Your task to perform on an android device: choose inbox layout in the gmail app Image 0: 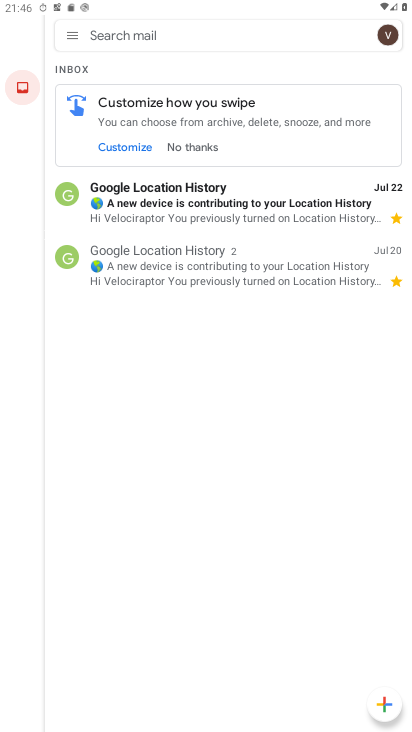
Step 0: click (68, 38)
Your task to perform on an android device: choose inbox layout in the gmail app Image 1: 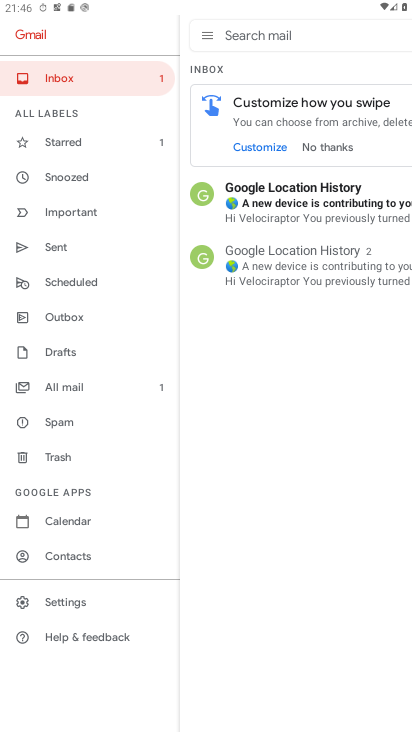
Step 1: click (55, 595)
Your task to perform on an android device: choose inbox layout in the gmail app Image 2: 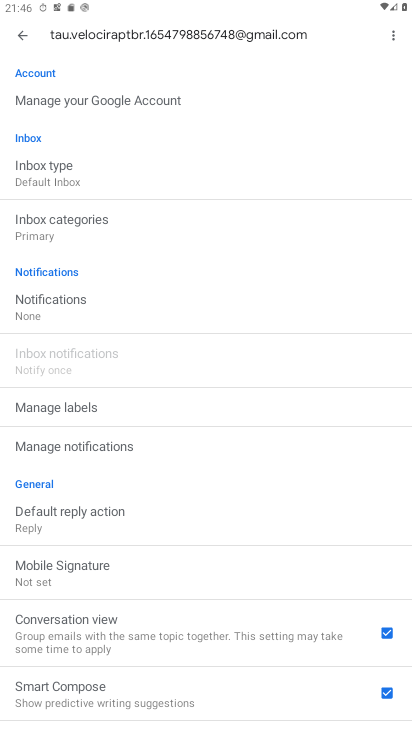
Step 2: click (53, 167)
Your task to perform on an android device: choose inbox layout in the gmail app Image 3: 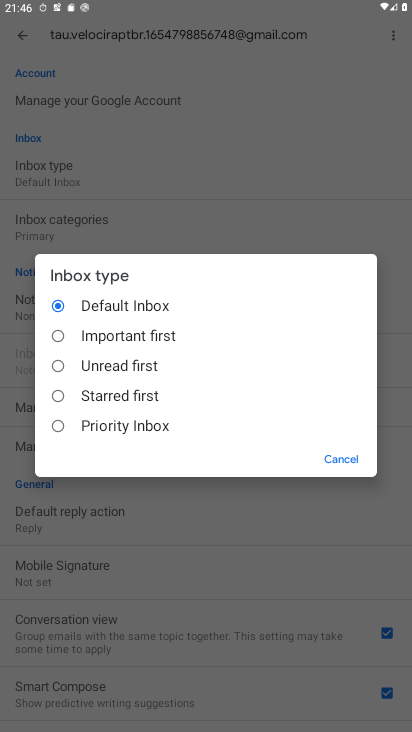
Step 3: click (57, 371)
Your task to perform on an android device: choose inbox layout in the gmail app Image 4: 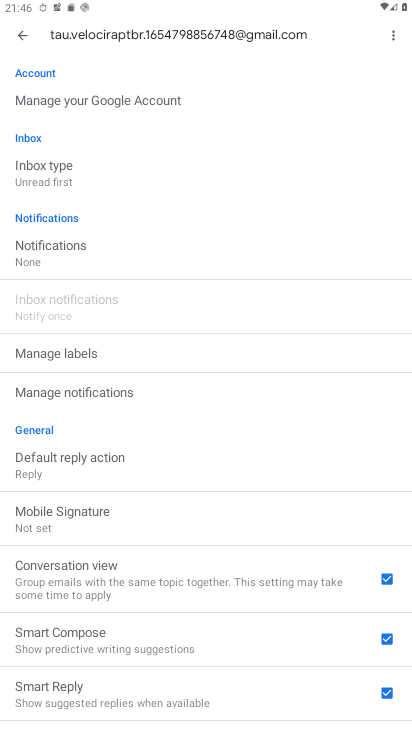
Step 4: task complete